Your task to perform on an android device: toggle show notifications on the lock screen Image 0: 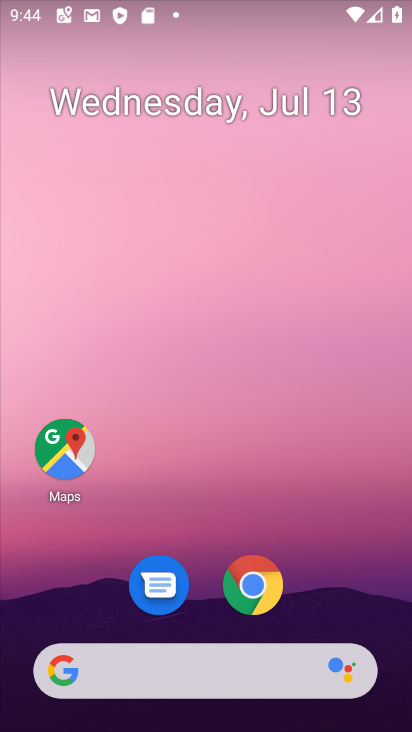
Step 0: drag from (223, 510) to (264, 28)
Your task to perform on an android device: toggle show notifications on the lock screen Image 1: 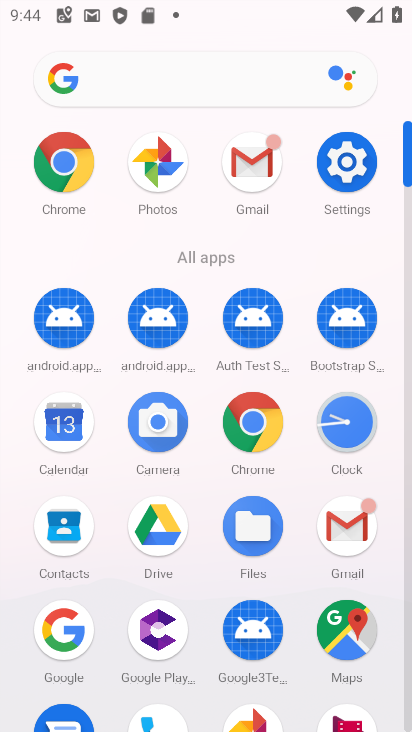
Step 1: click (353, 160)
Your task to perform on an android device: toggle show notifications on the lock screen Image 2: 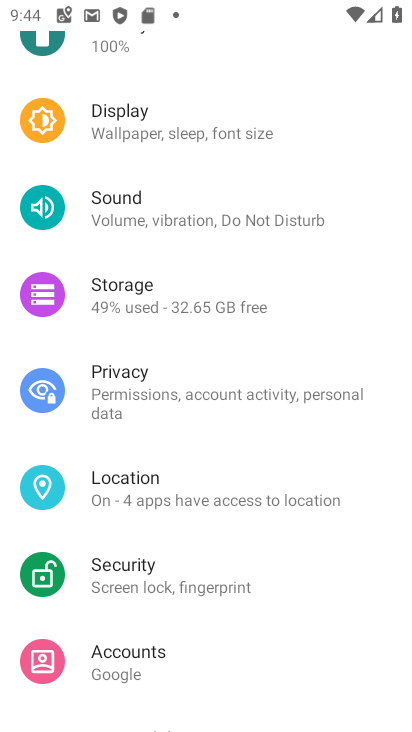
Step 2: drag from (205, 182) to (279, 643)
Your task to perform on an android device: toggle show notifications on the lock screen Image 3: 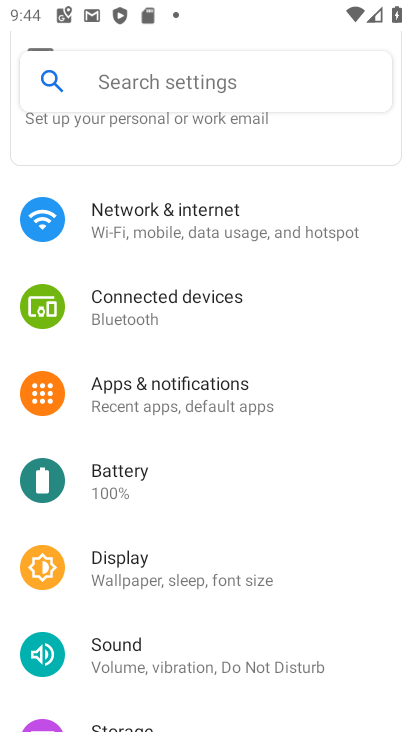
Step 3: drag from (221, 374) to (242, 561)
Your task to perform on an android device: toggle show notifications on the lock screen Image 4: 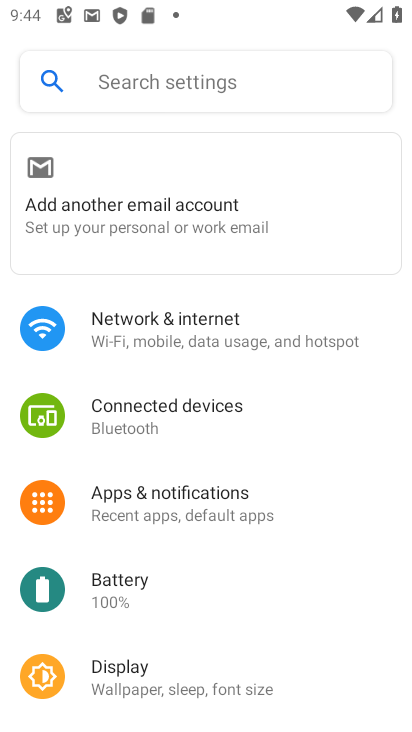
Step 4: click (220, 507)
Your task to perform on an android device: toggle show notifications on the lock screen Image 5: 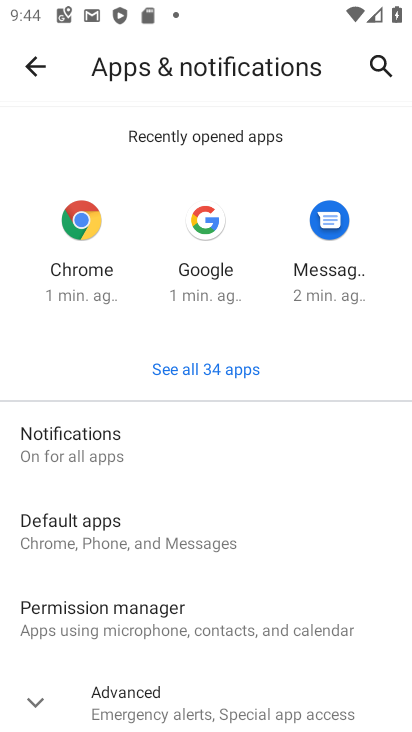
Step 5: click (105, 437)
Your task to perform on an android device: toggle show notifications on the lock screen Image 6: 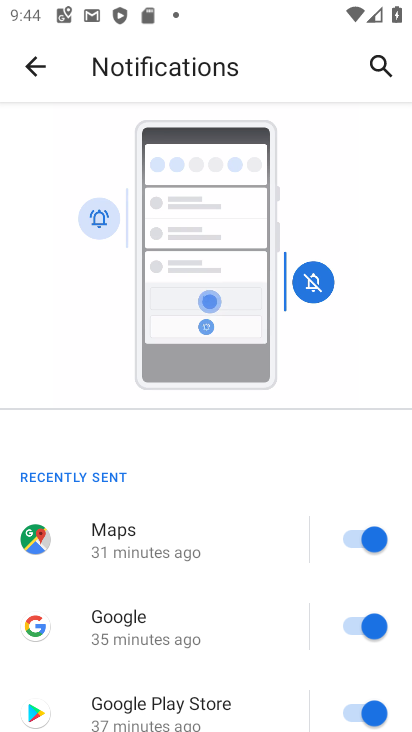
Step 6: drag from (232, 681) to (237, 85)
Your task to perform on an android device: toggle show notifications on the lock screen Image 7: 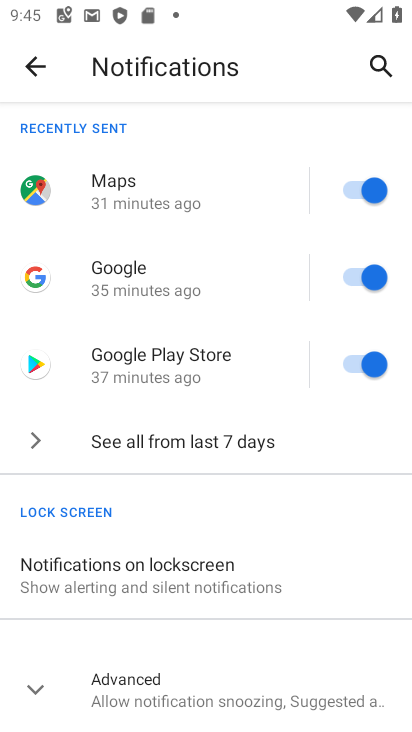
Step 7: click (208, 569)
Your task to perform on an android device: toggle show notifications on the lock screen Image 8: 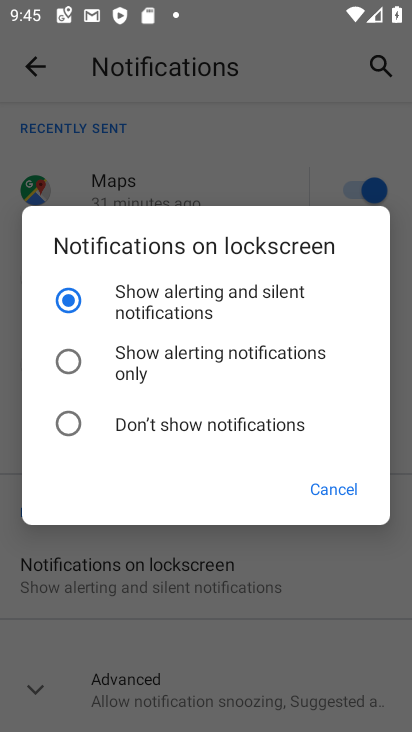
Step 8: click (73, 421)
Your task to perform on an android device: toggle show notifications on the lock screen Image 9: 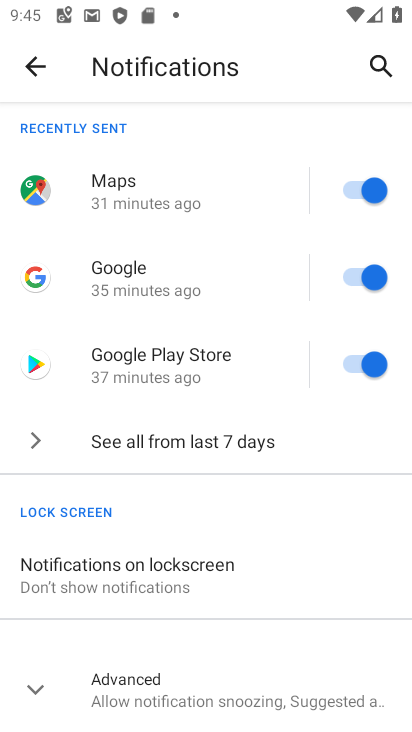
Step 9: task complete